Your task to perform on an android device: turn notification dots off Image 0: 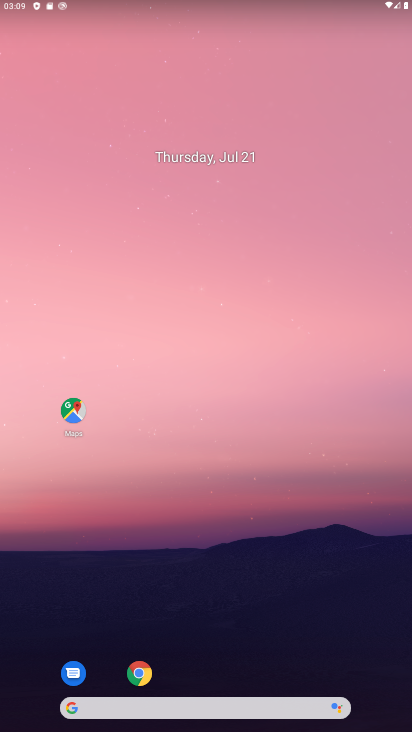
Step 0: drag from (332, 572) to (299, 0)
Your task to perform on an android device: turn notification dots off Image 1: 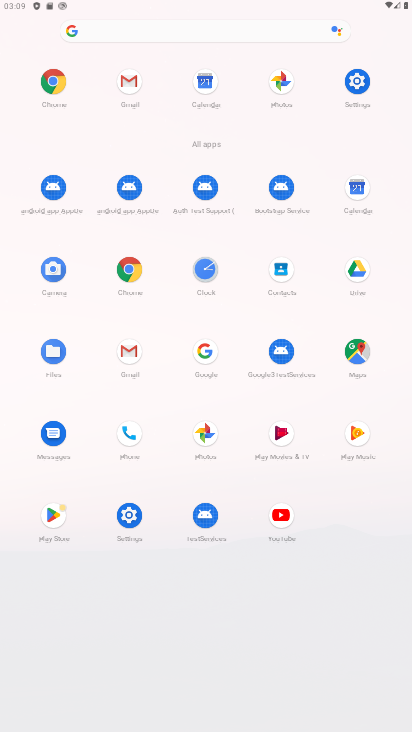
Step 1: click (132, 514)
Your task to perform on an android device: turn notification dots off Image 2: 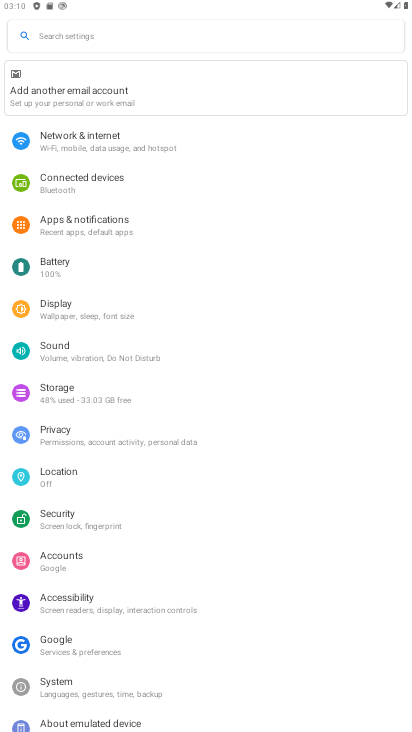
Step 2: click (107, 228)
Your task to perform on an android device: turn notification dots off Image 3: 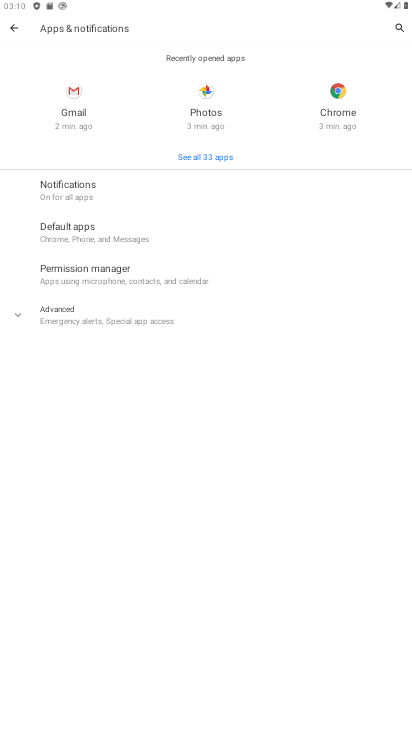
Step 3: click (77, 178)
Your task to perform on an android device: turn notification dots off Image 4: 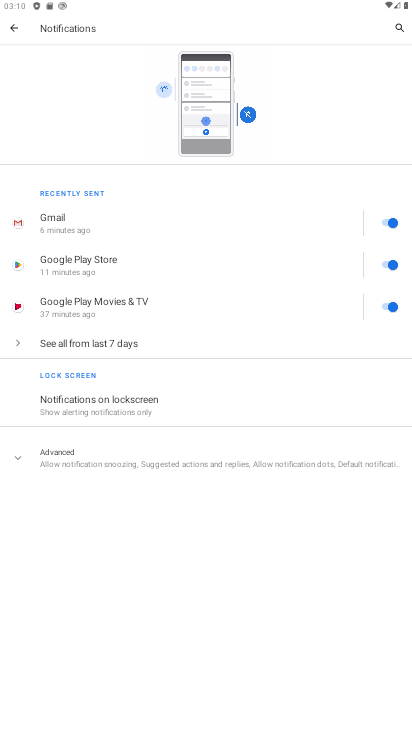
Step 4: click (115, 454)
Your task to perform on an android device: turn notification dots off Image 5: 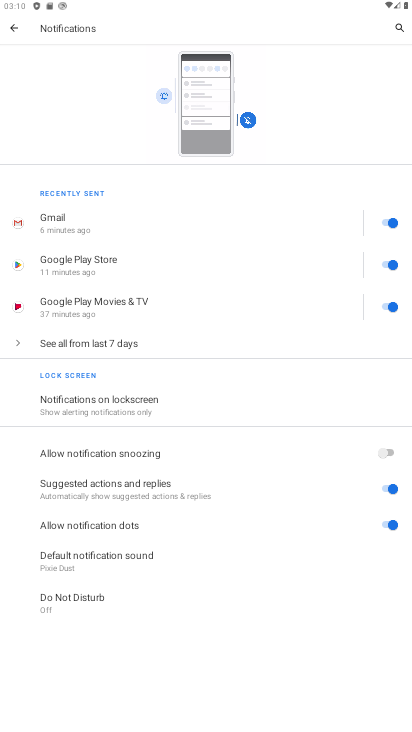
Step 5: click (386, 528)
Your task to perform on an android device: turn notification dots off Image 6: 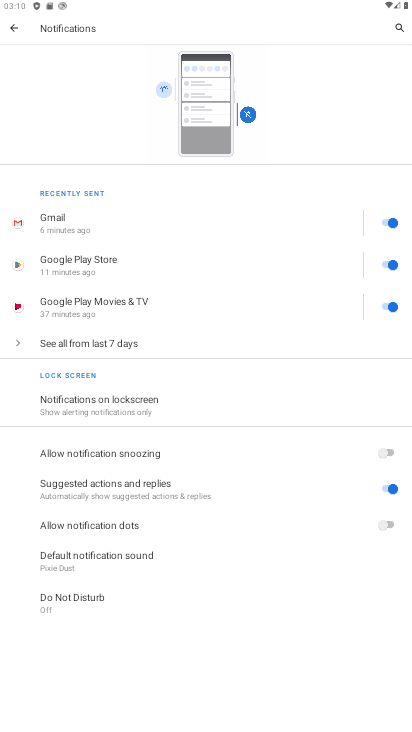
Step 6: task complete